Your task to perform on an android device: Open settings Image 0: 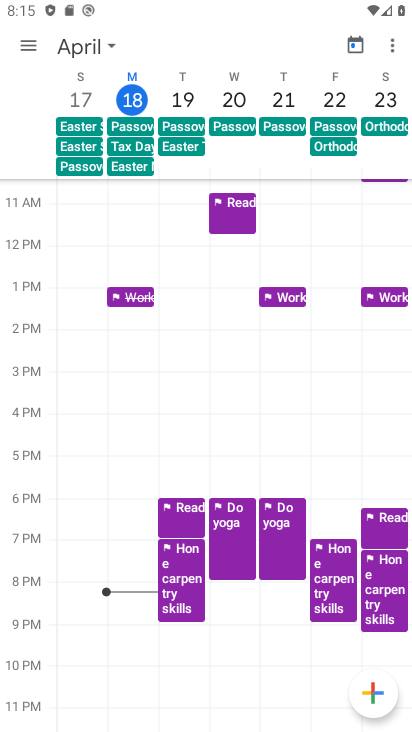
Step 0: press home button
Your task to perform on an android device: Open settings Image 1: 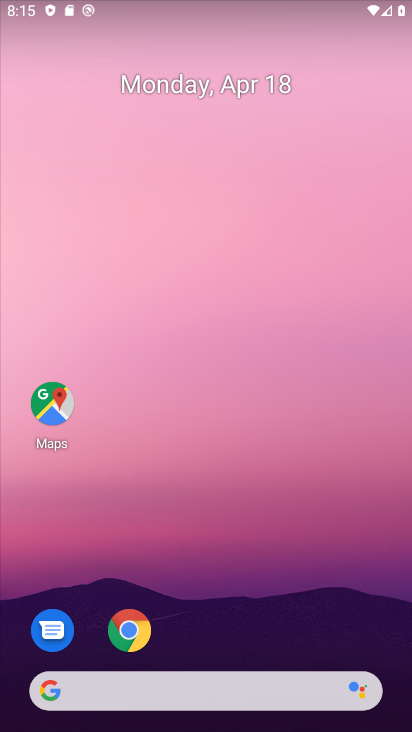
Step 1: drag from (219, 661) to (280, 173)
Your task to perform on an android device: Open settings Image 2: 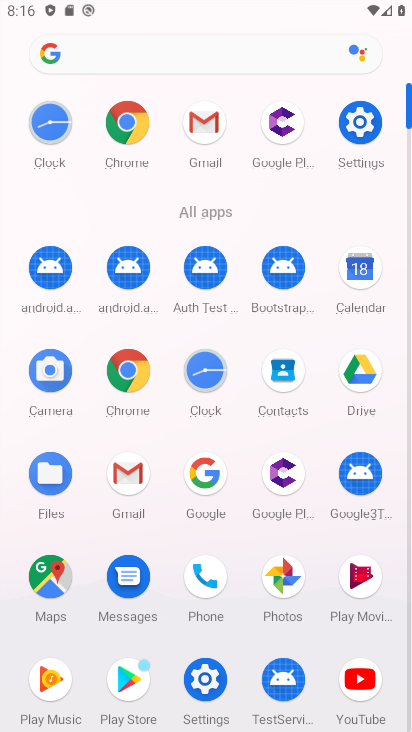
Step 2: click (361, 125)
Your task to perform on an android device: Open settings Image 3: 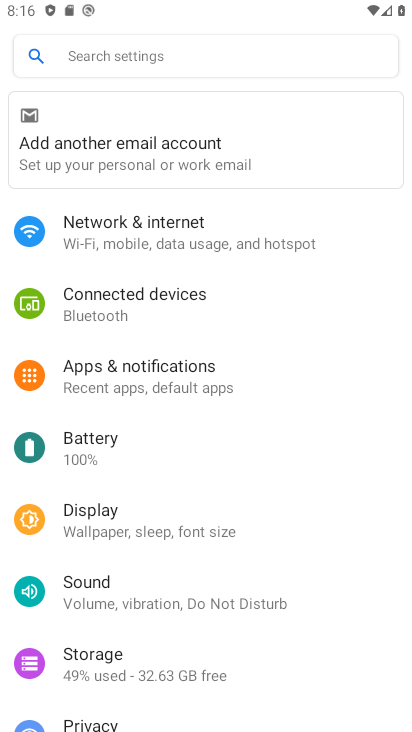
Step 3: task complete